Your task to perform on an android device: Open Google Maps and go to "Timeline" Image 0: 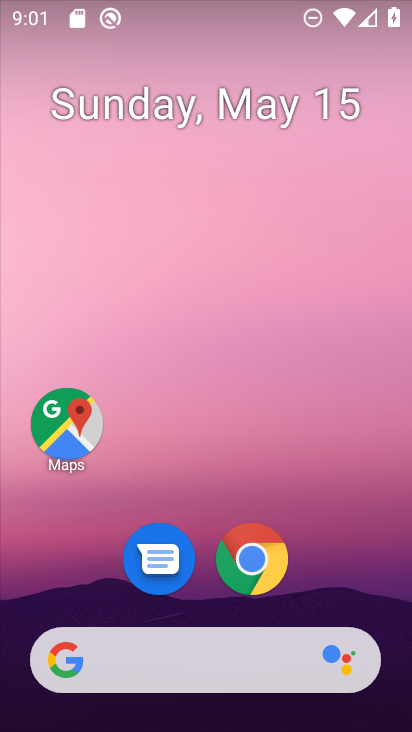
Step 0: drag from (316, 473) to (293, 182)
Your task to perform on an android device: Open Google Maps and go to "Timeline" Image 1: 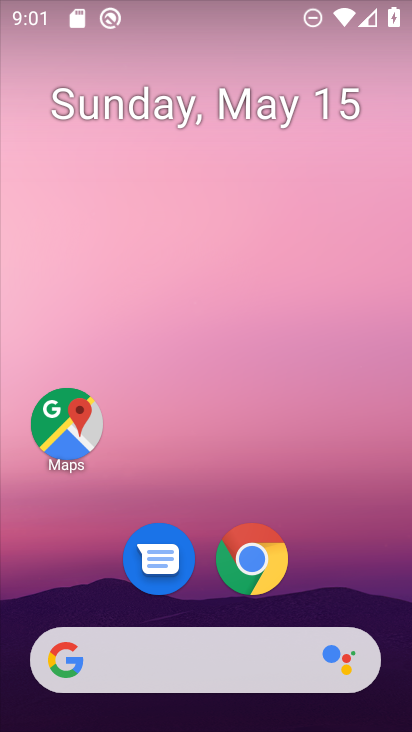
Step 1: click (51, 407)
Your task to perform on an android device: Open Google Maps and go to "Timeline" Image 2: 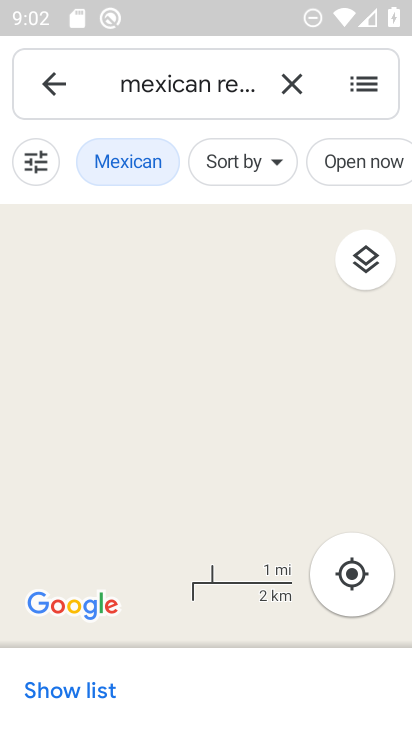
Step 2: click (294, 84)
Your task to perform on an android device: Open Google Maps and go to "Timeline" Image 3: 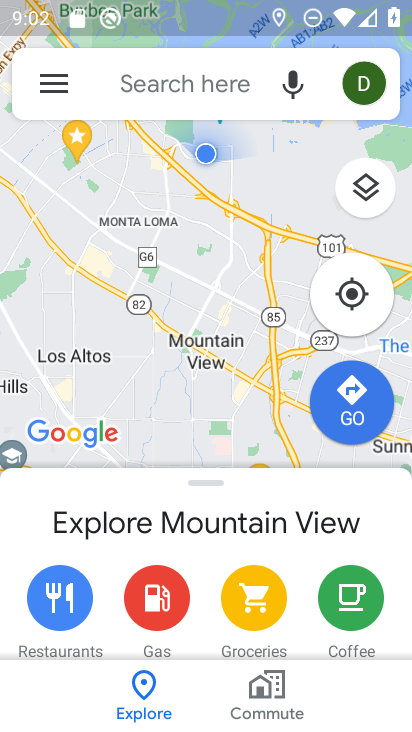
Step 3: click (62, 96)
Your task to perform on an android device: Open Google Maps and go to "Timeline" Image 4: 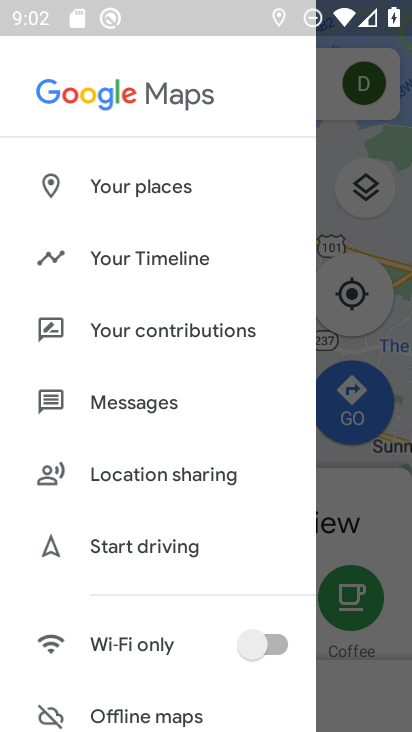
Step 4: click (181, 272)
Your task to perform on an android device: Open Google Maps and go to "Timeline" Image 5: 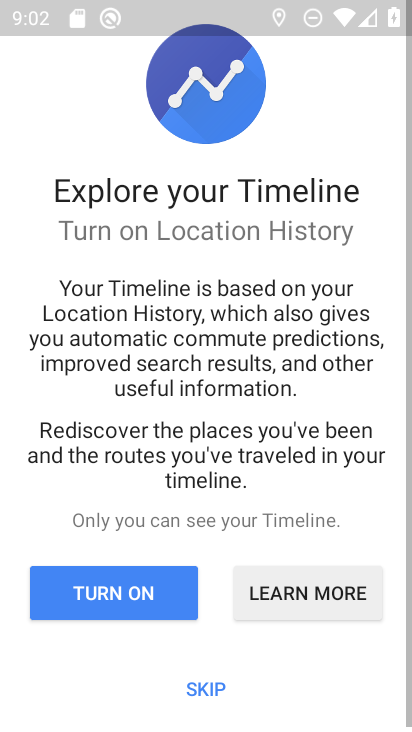
Step 5: task complete